Your task to perform on an android device: Go to sound settings Image 0: 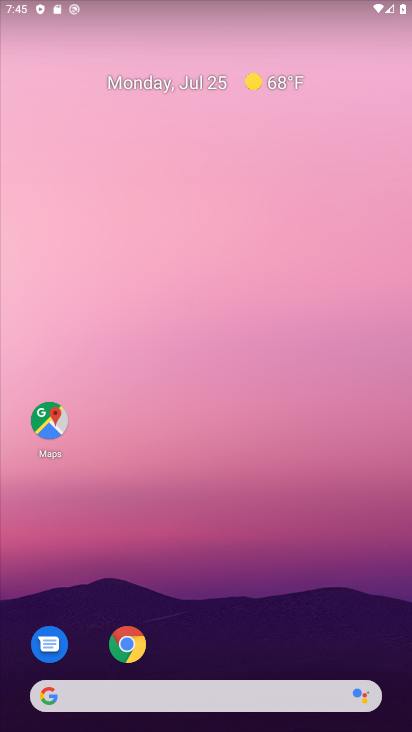
Step 0: click (197, 119)
Your task to perform on an android device: Go to sound settings Image 1: 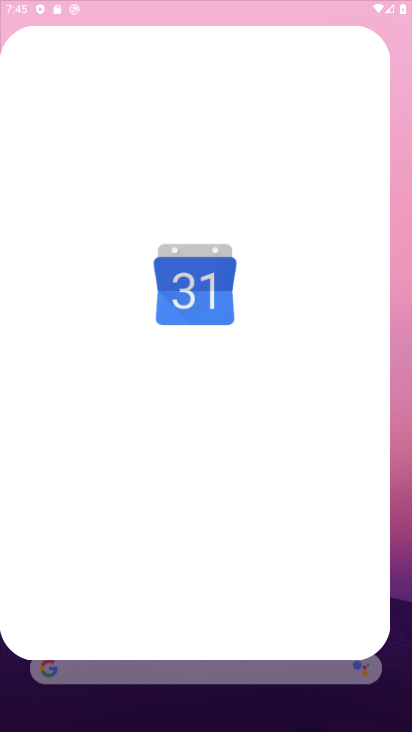
Step 1: drag from (214, 497) to (140, 88)
Your task to perform on an android device: Go to sound settings Image 2: 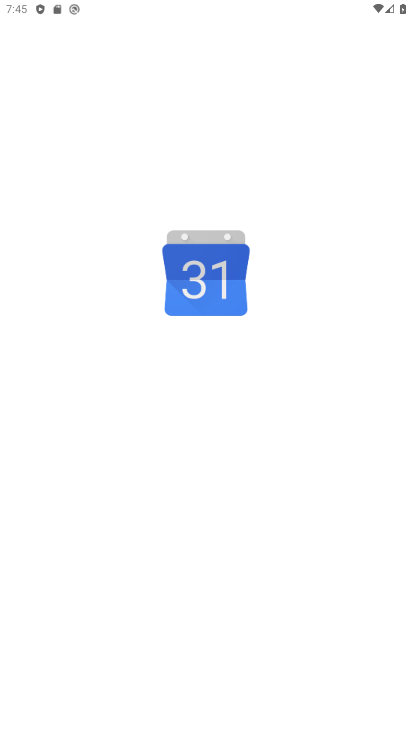
Step 2: drag from (198, 290) to (195, 99)
Your task to perform on an android device: Go to sound settings Image 3: 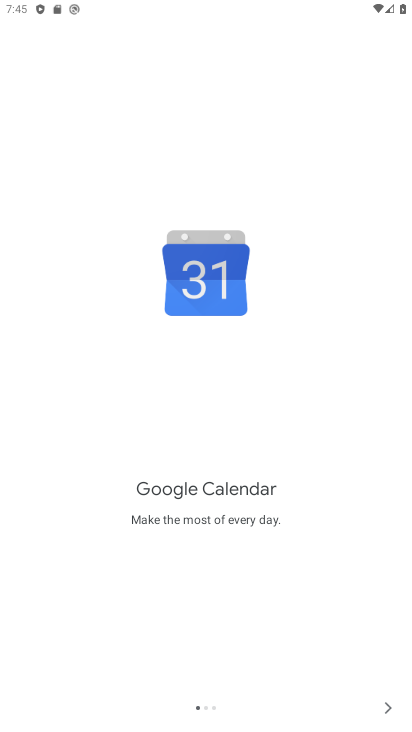
Step 3: press back button
Your task to perform on an android device: Go to sound settings Image 4: 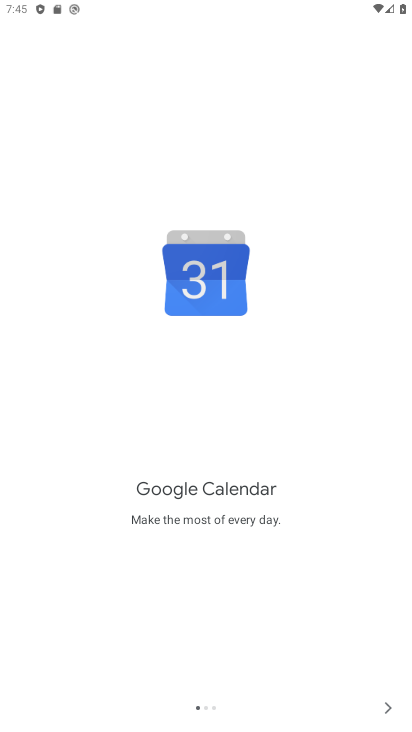
Step 4: press back button
Your task to perform on an android device: Go to sound settings Image 5: 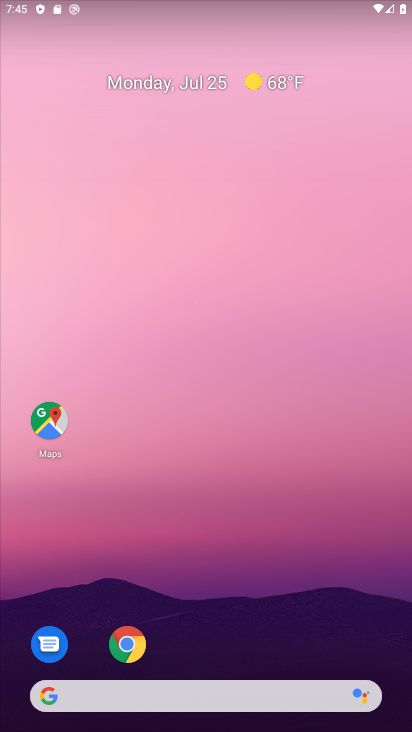
Step 5: press home button
Your task to perform on an android device: Go to sound settings Image 6: 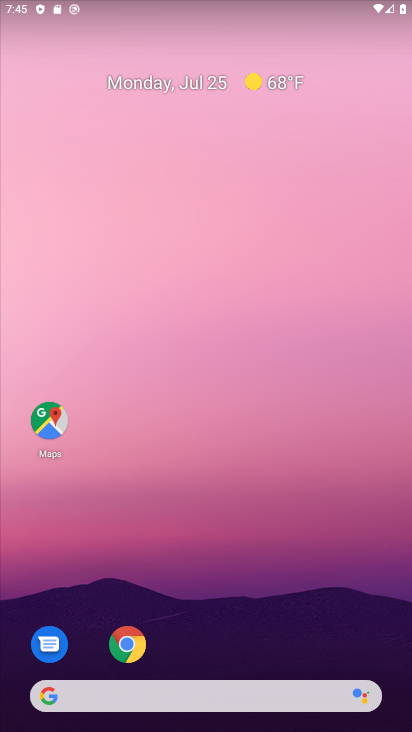
Step 6: click (202, 296)
Your task to perform on an android device: Go to sound settings Image 7: 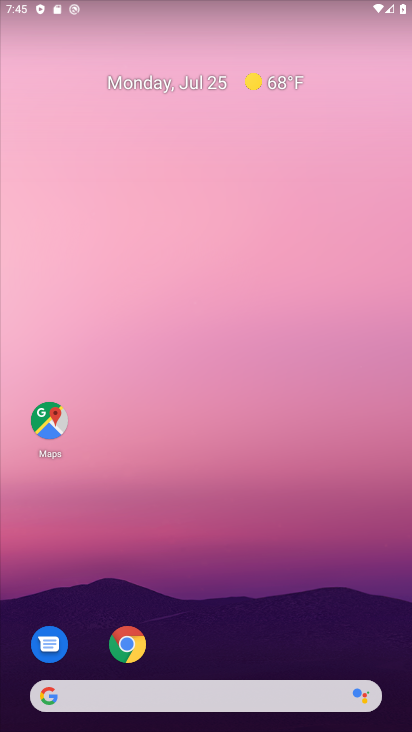
Step 7: click (172, 231)
Your task to perform on an android device: Go to sound settings Image 8: 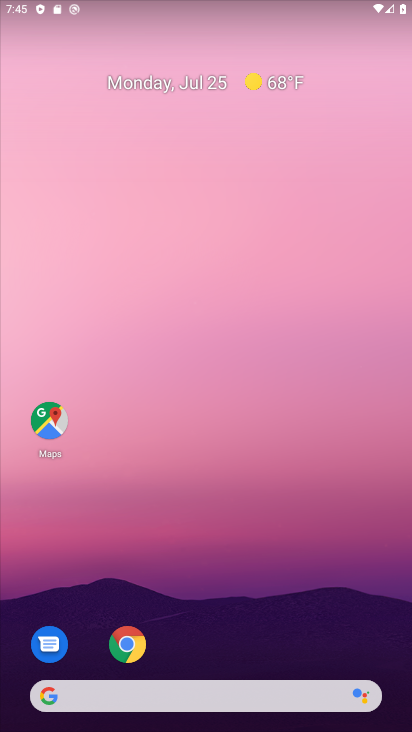
Step 8: drag from (201, 666) to (256, 93)
Your task to perform on an android device: Go to sound settings Image 9: 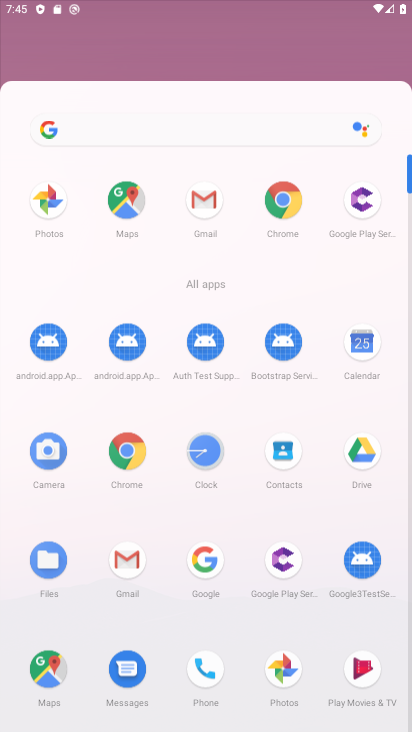
Step 9: click (199, 192)
Your task to perform on an android device: Go to sound settings Image 10: 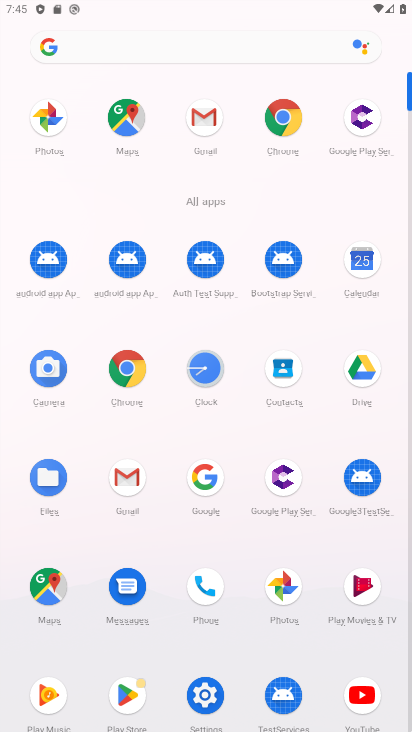
Step 10: drag from (200, 636) to (187, 282)
Your task to perform on an android device: Go to sound settings Image 11: 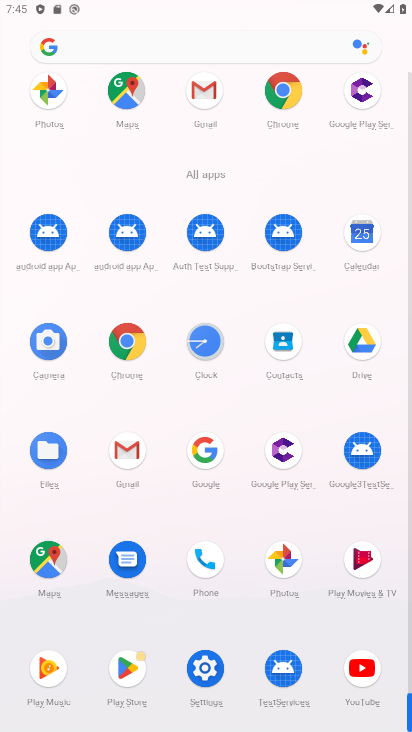
Step 11: click (209, 678)
Your task to perform on an android device: Go to sound settings Image 12: 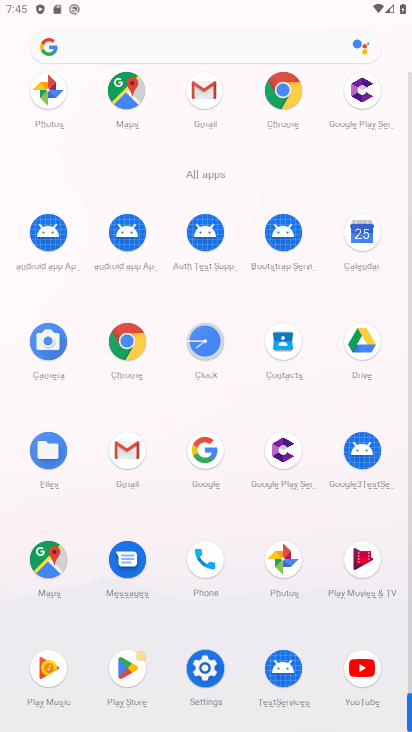
Step 12: click (207, 674)
Your task to perform on an android device: Go to sound settings Image 13: 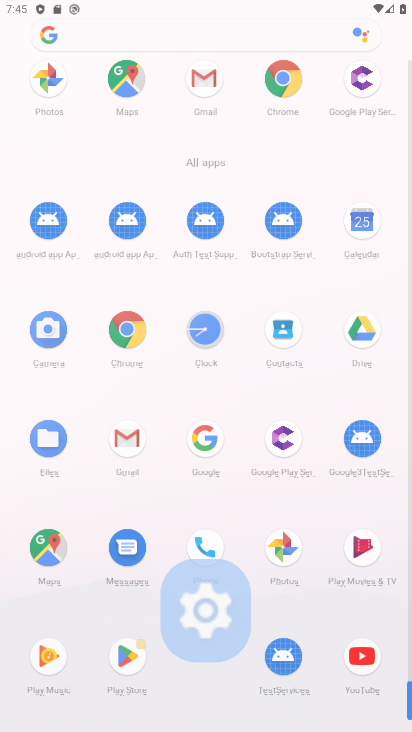
Step 13: click (207, 674)
Your task to perform on an android device: Go to sound settings Image 14: 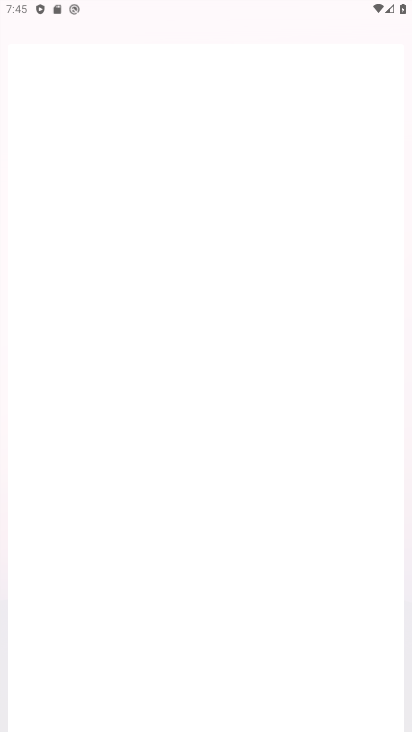
Step 14: click (207, 674)
Your task to perform on an android device: Go to sound settings Image 15: 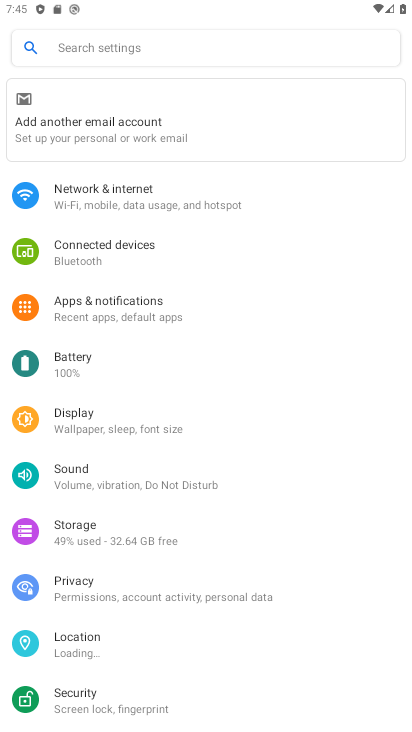
Step 15: click (77, 472)
Your task to perform on an android device: Go to sound settings Image 16: 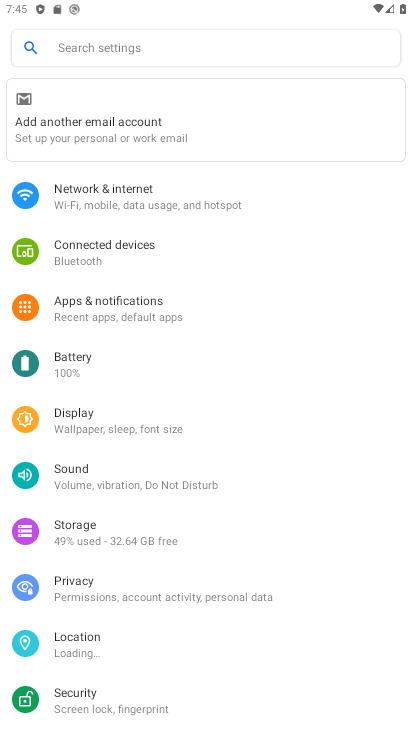
Step 16: click (77, 472)
Your task to perform on an android device: Go to sound settings Image 17: 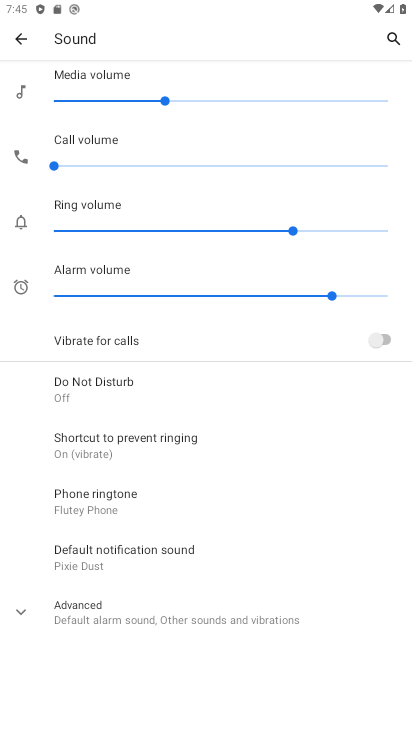
Step 17: task complete